Your task to perform on an android device: turn off notifications settings in the gmail app Image 0: 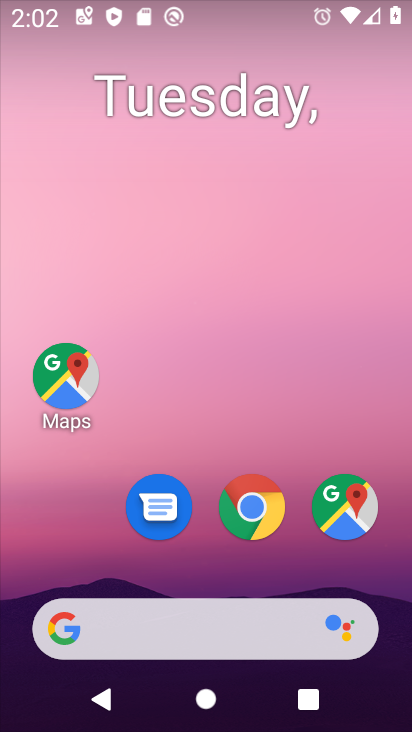
Step 0: drag from (301, 458) to (285, 133)
Your task to perform on an android device: turn off notifications settings in the gmail app Image 1: 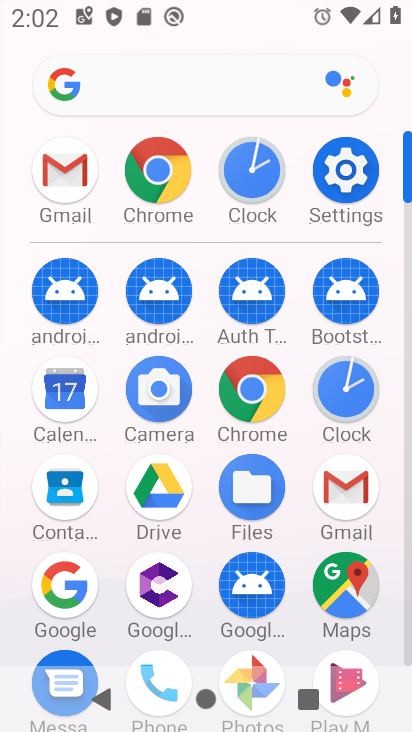
Step 1: click (331, 489)
Your task to perform on an android device: turn off notifications settings in the gmail app Image 2: 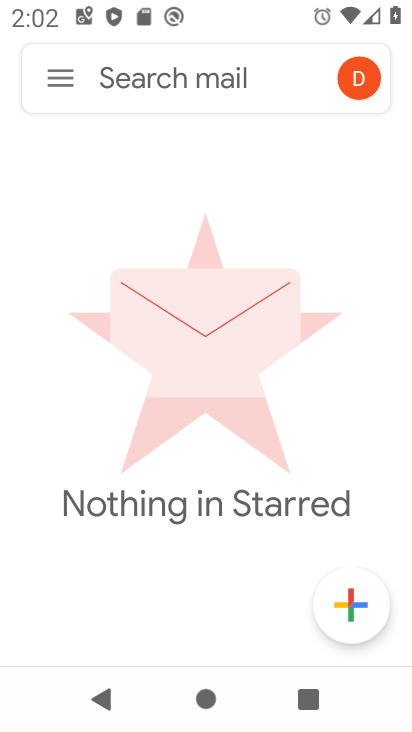
Step 2: click (49, 71)
Your task to perform on an android device: turn off notifications settings in the gmail app Image 3: 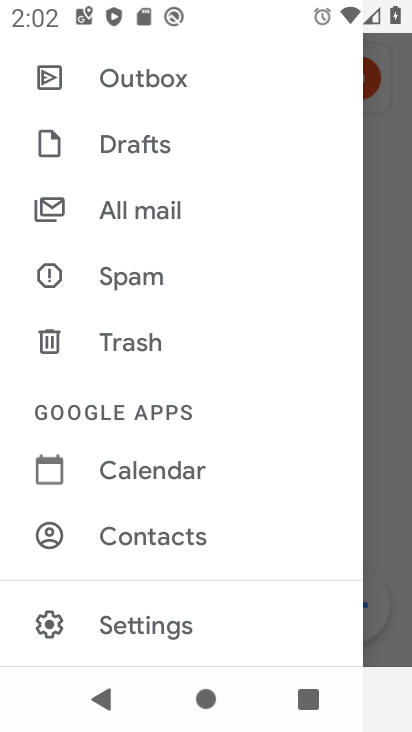
Step 3: click (183, 626)
Your task to perform on an android device: turn off notifications settings in the gmail app Image 4: 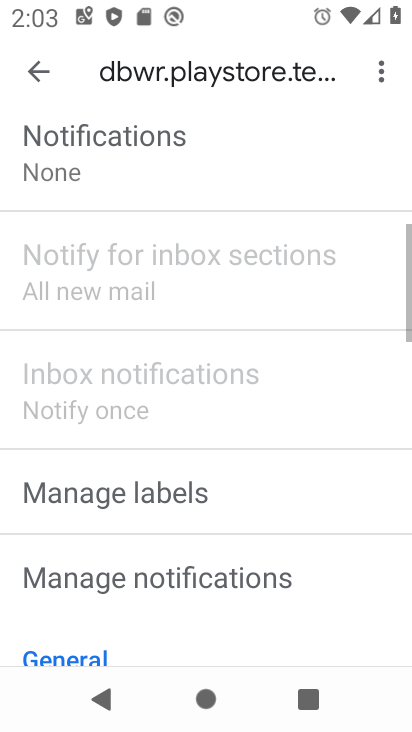
Step 4: drag from (166, 564) to (190, 276)
Your task to perform on an android device: turn off notifications settings in the gmail app Image 5: 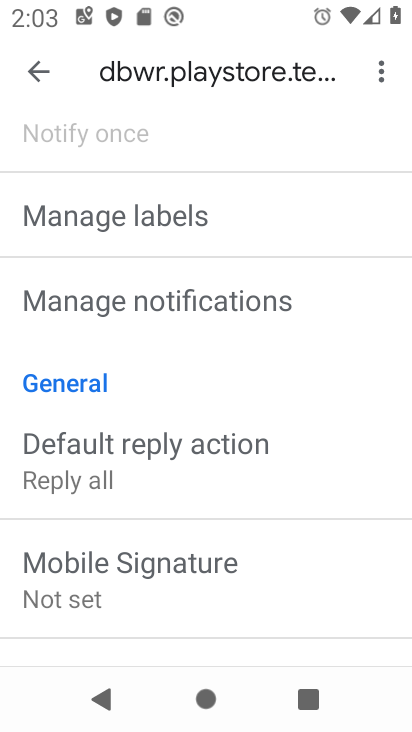
Step 5: drag from (291, 502) to (266, 109)
Your task to perform on an android device: turn off notifications settings in the gmail app Image 6: 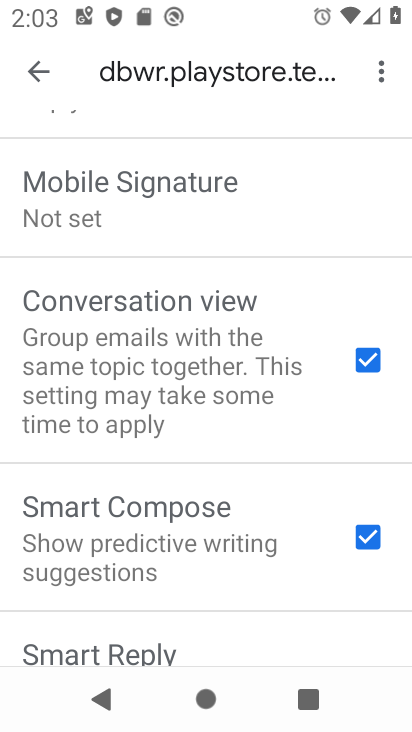
Step 6: drag from (213, 389) to (239, 622)
Your task to perform on an android device: turn off notifications settings in the gmail app Image 7: 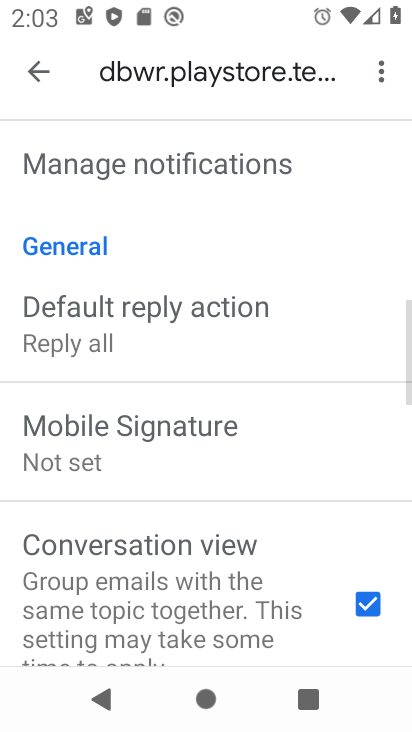
Step 7: drag from (126, 124) to (177, 560)
Your task to perform on an android device: turn off notifications settings in the gmail app Image 8: 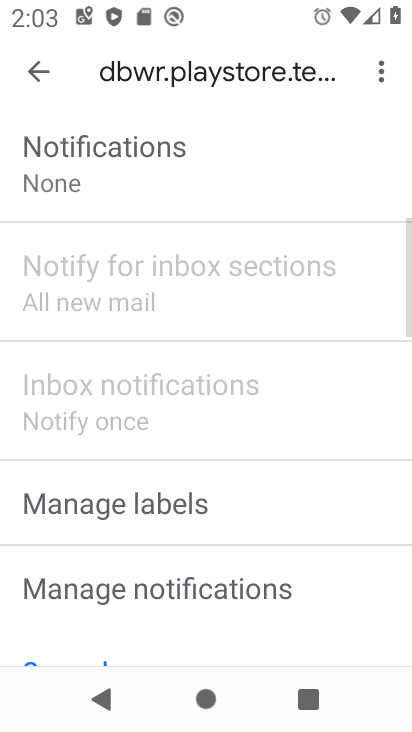
Step 8: drag from (109, 194) to (135, 502)
Your task to perform on an android device: turn off notifications settings in the gmail app Image 9: 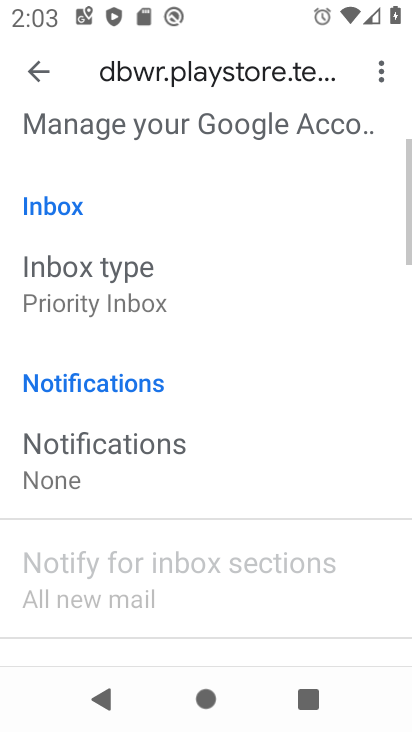
Step 9: click (113, 446)
Your task to perform on an android device: turn off notifications settings in the gmail app Image 10: 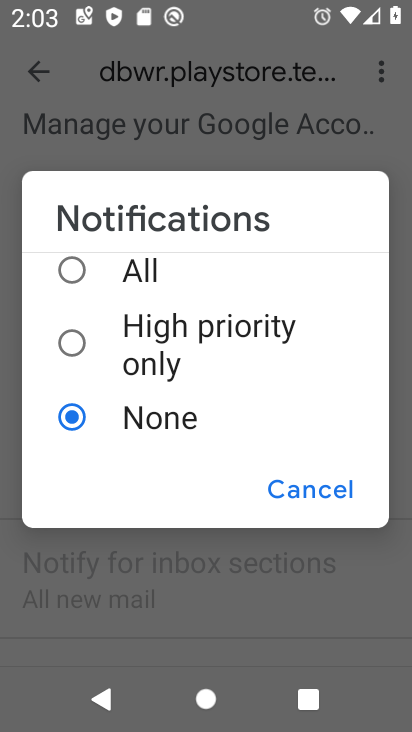
Step 10: click (141, 267)
Your task to perform on an android device: turn off notifications settings in the gmail app Image 11: 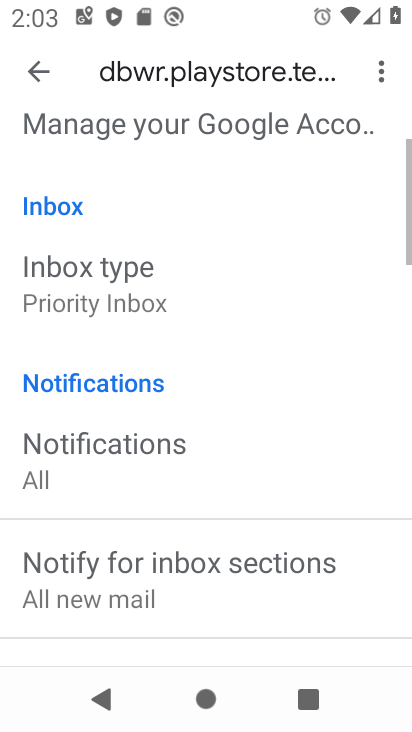
Step 11: click (99, 413)
Your task to perform on an android device: turn off notifications settings in the gmail app Image 12: 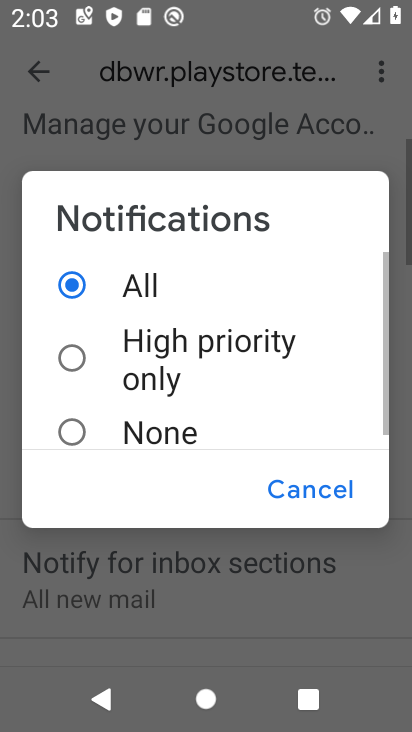
Step 12: click (145, 419)
Your task to perform on an android device: turn off notifications settings in the gmail app Image 13: 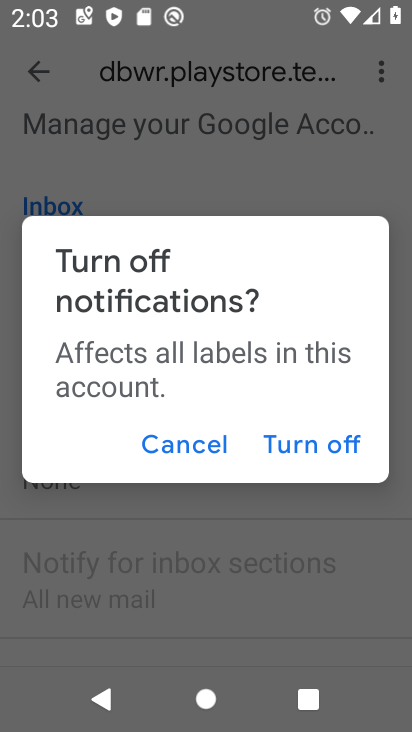
Step 13: click (333, 453)
Your task to perform on an android device: turn off notifications settings in the gmail app Image 14: 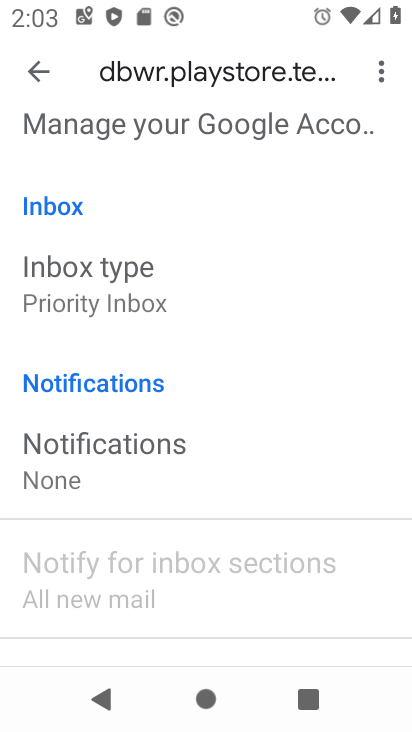
Step 14: click (315, 428)
Your task to perform on an android device: turn off notifications settings in the gmail app Image 15: 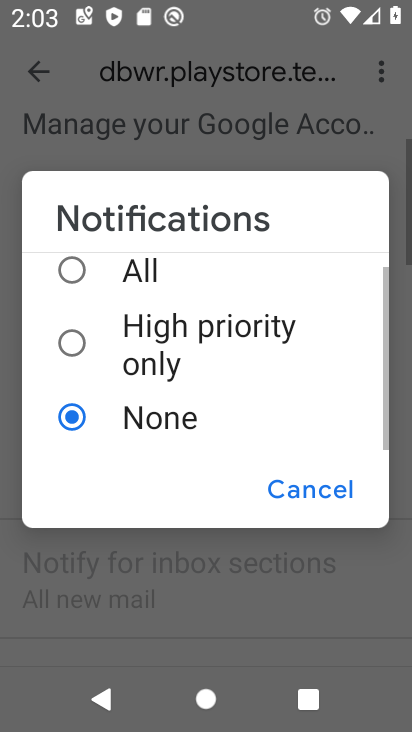
Step 15: task complete